Your task to perform on an android device: Google the capital of Argentina Image 0: 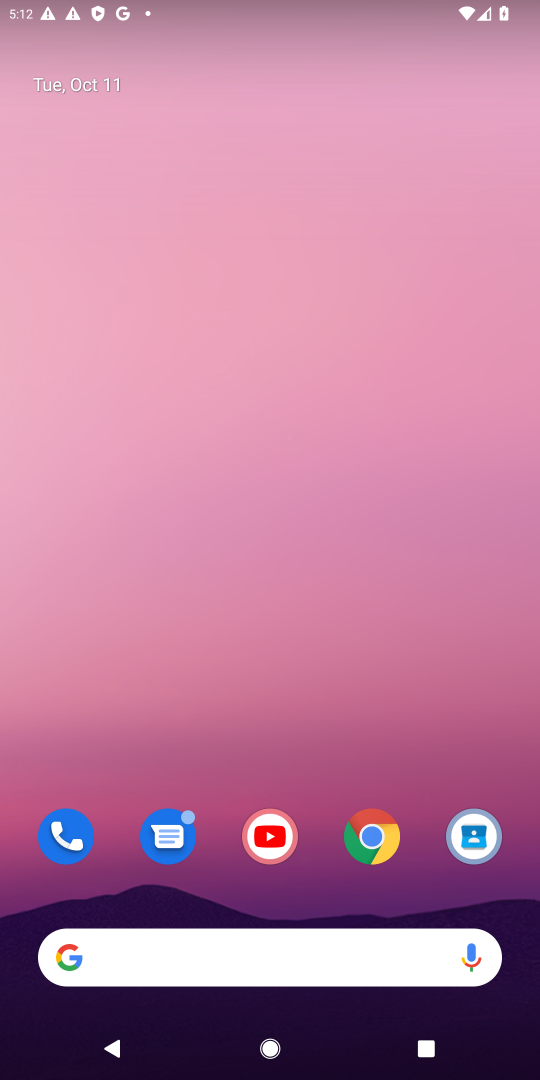
Step 0: click (364, 834)
Your task to perform on an android device: Google the capital of Argentina Image 1: 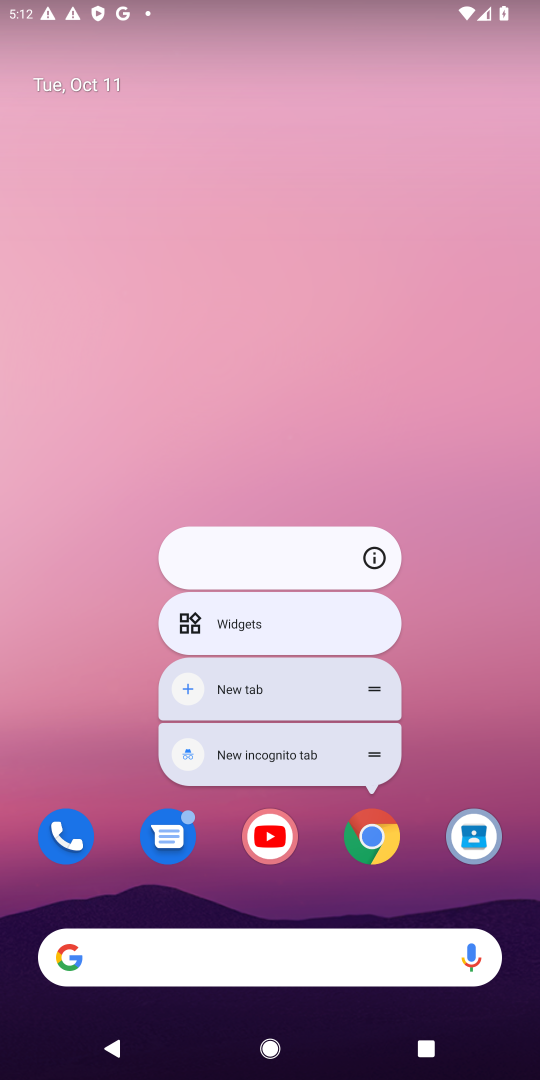
Step 1: click (377, 838)
Your task to perform on an android device: Google the capital of Argentina Image 2: 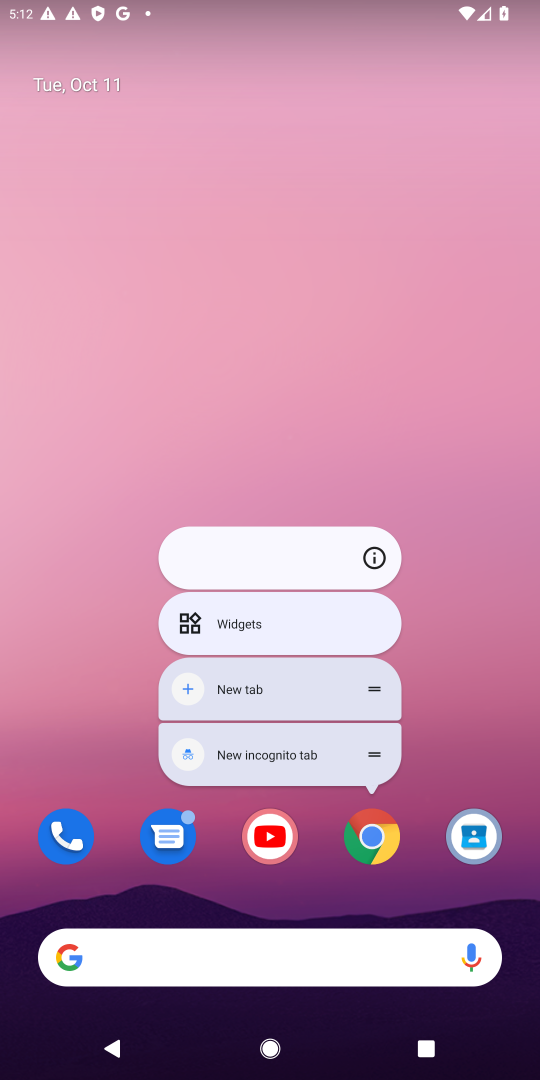
Step 2: click (382, 840)
Your task to perform on an android device: Google the capital of Argentina Image 3: 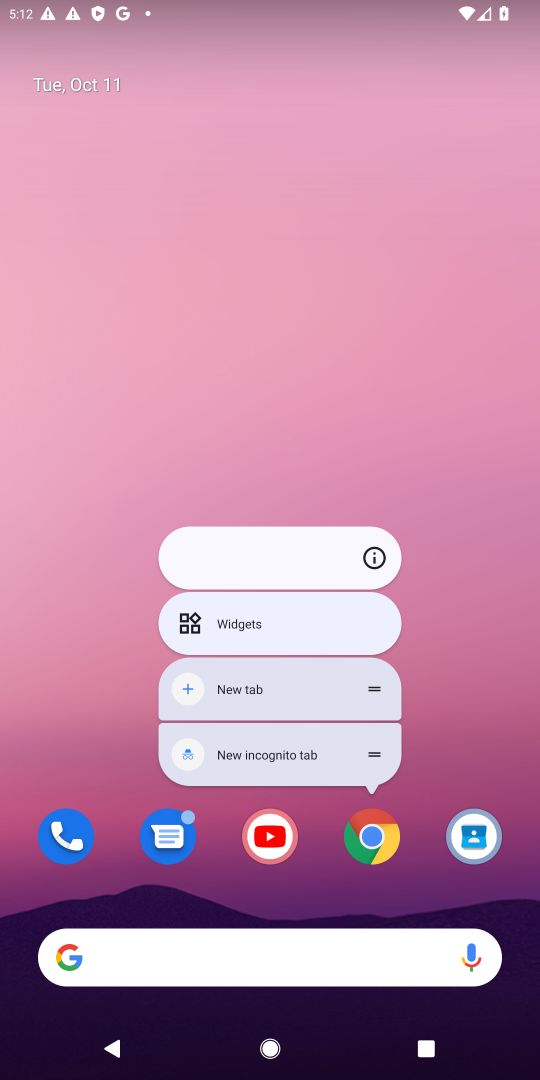
Step 3: click (371, 834)
Your task to perform on an android device: Google the capital of Argentina Image 4: 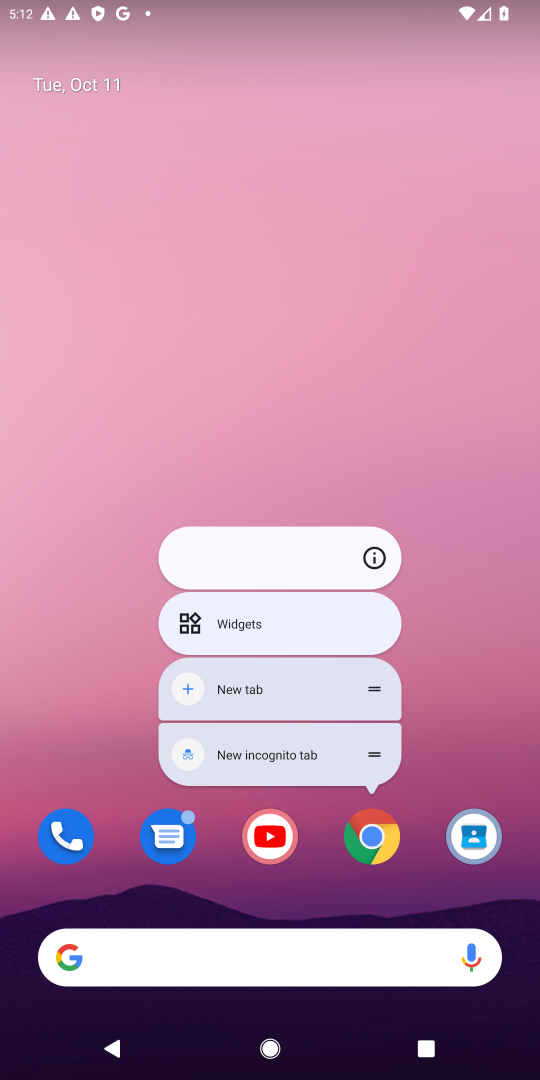
Step 4: click (377, 835)
Your task to perform on an android device: Google the capital of Argentina Image 5: 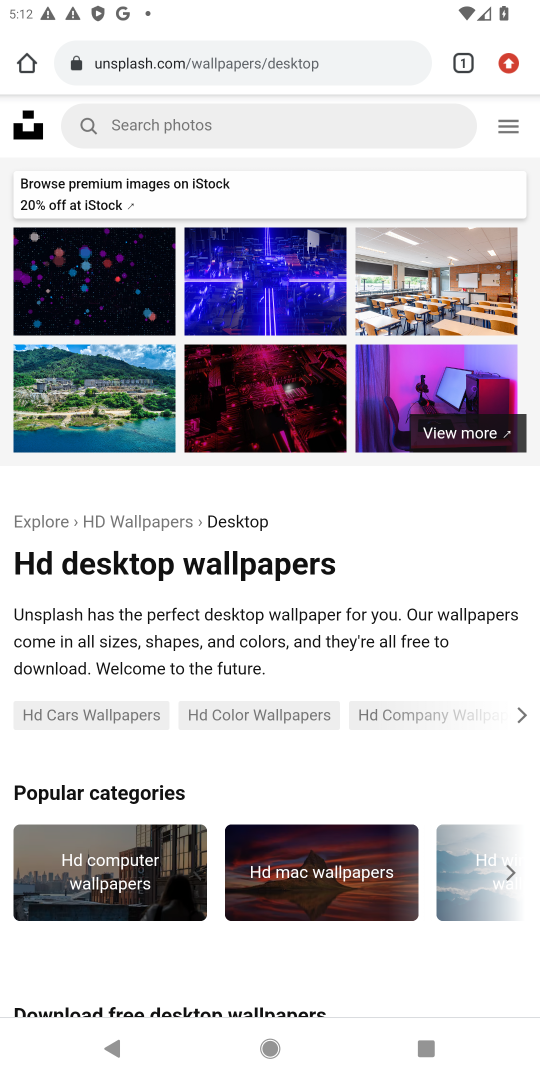
Step 5: click (298, 64)
Your task to perform on an android device: Google the capital of Argentina Image 6: 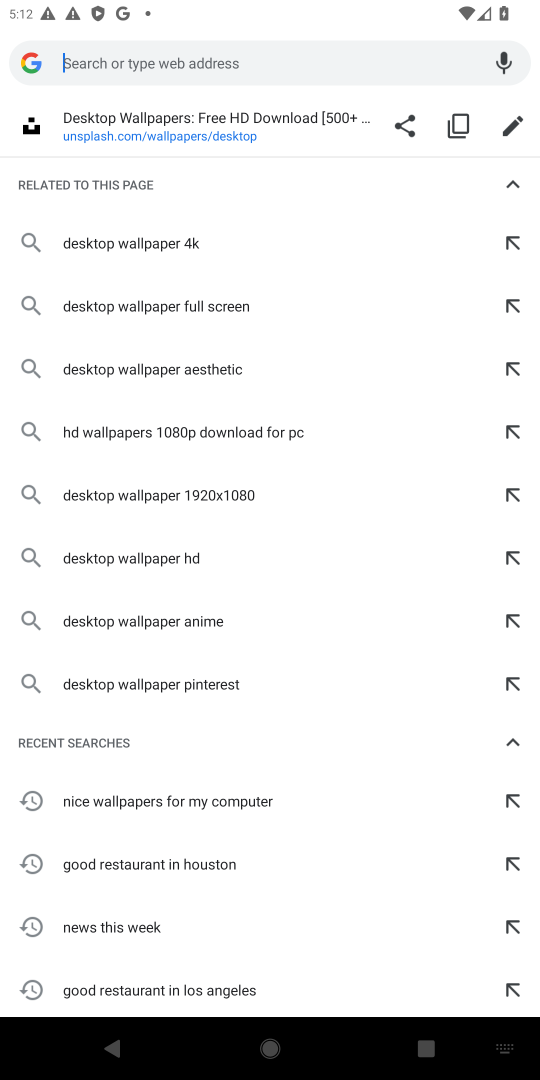
Step 6: type " capital of Argentina"
Your task to perform on an android device: Google the capital of Argentina Image 7: 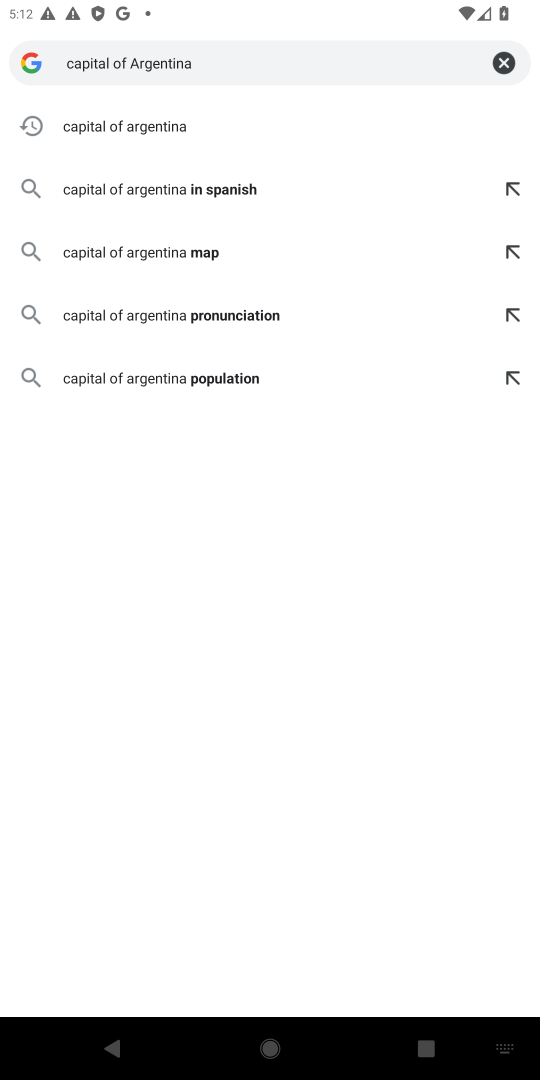
Step 7: click (93, 127)
Your task to perform on an android device: Google the capital of Argentina Image 8: 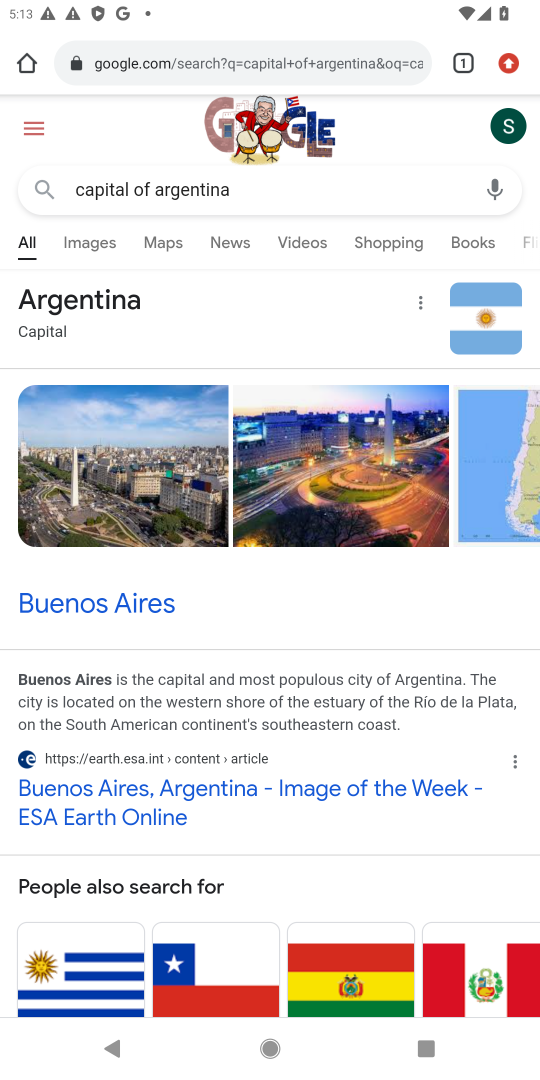
Step 8: task complete